Your task to perform on an android device: toggle wifi Image 0: 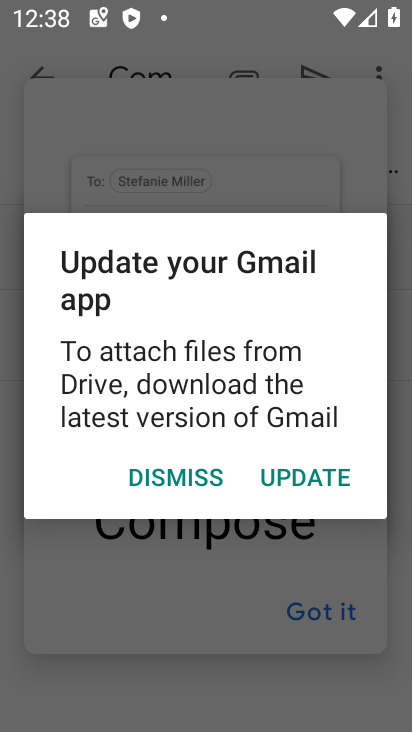
Step 0: press home button
Your task to perform on an android device: toggle wifi Image 1: 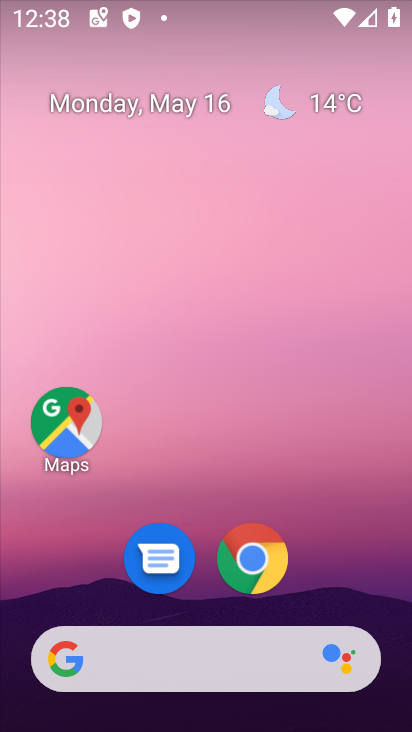
Step 1: drag from (342, 545) to (374, 190)
Your task to perform on an android device: toggle wifi Image 2: 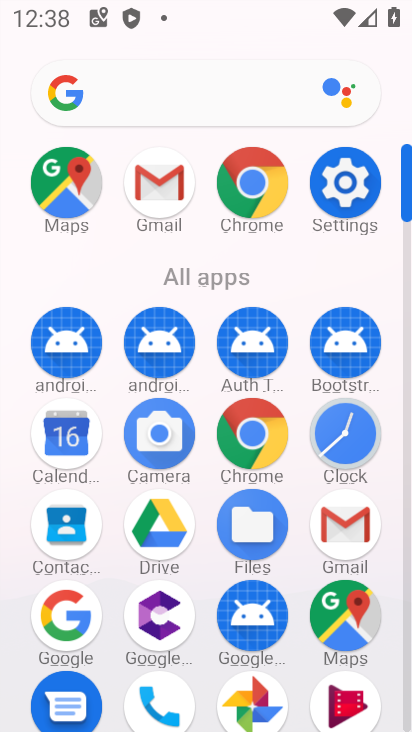
Step 2: click (328, 188)
Your task to perform on an android device: toggle wifi Image 3: 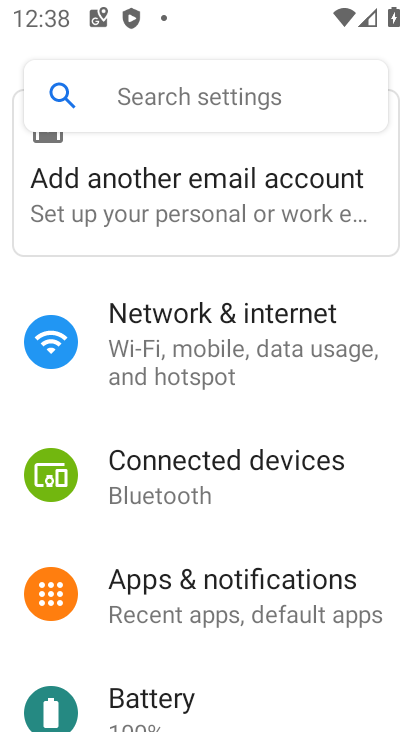
Step 3: drag from (134, 201) to (210, 665)
Your task to perform on an android device: toggle wifi Image 4: 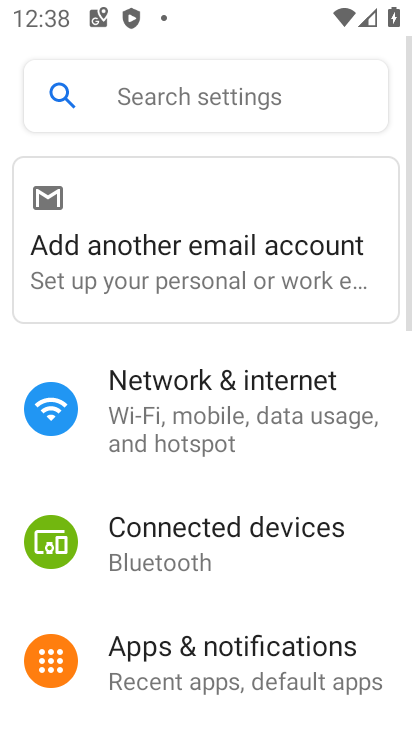
Step 4: click (195, 400)
Your task to perform on an android device: toggle wifi Image 5: 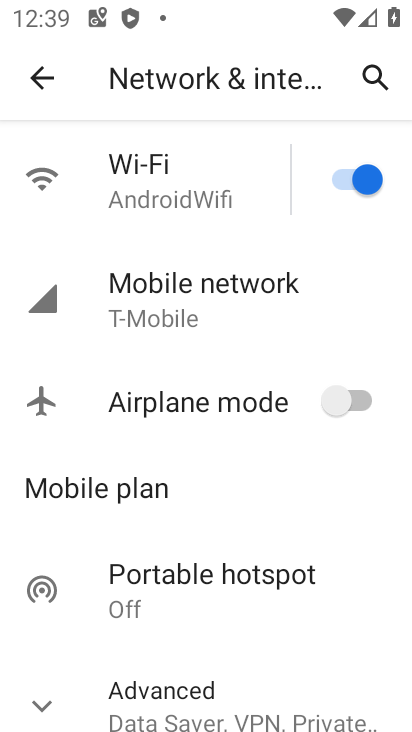
Step 5: click (183, 198)
Your task to perform on an android device: toggle wifi Image 6: 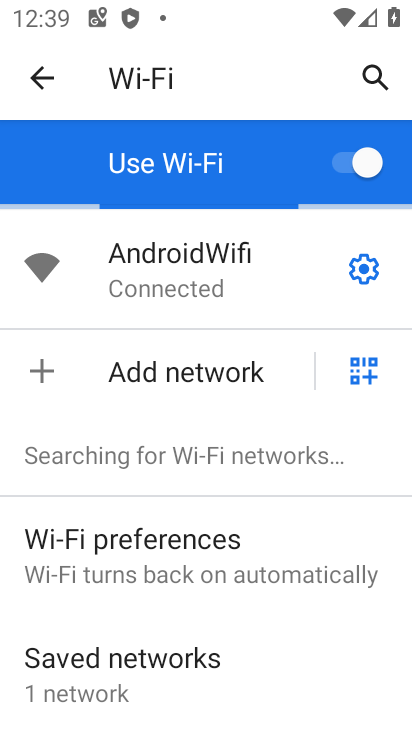
Step 6: click (349, 160)
Your task to perform on an android device: toggle wifi Image 7: 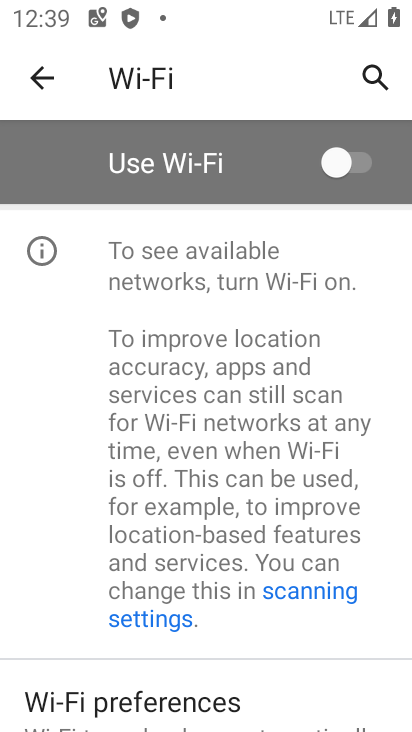
Step 7: task complete